Your task to perform on an android device: change the clock display to digital Image 0: 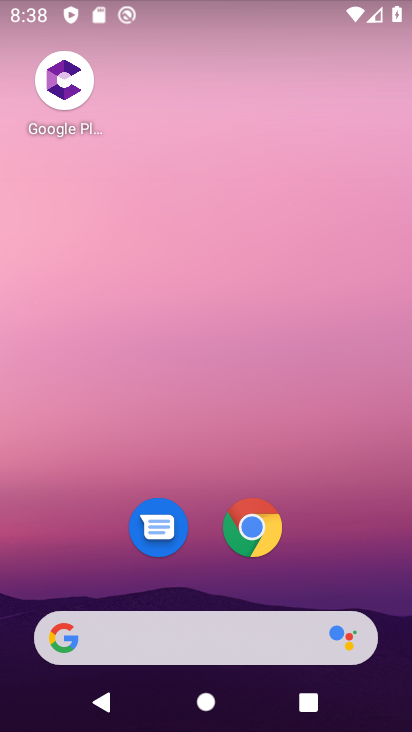
Step 0: drag from (401, 608) to (307, 154)
Your task to perform on an android device: change the clock display to digital Image 1: 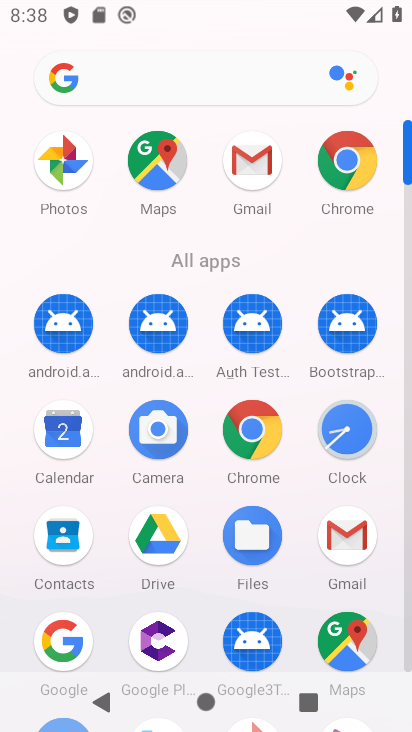
Step 1: click (343, 425)
Your task to perform on an android device: change the clock display to digital Image 2: 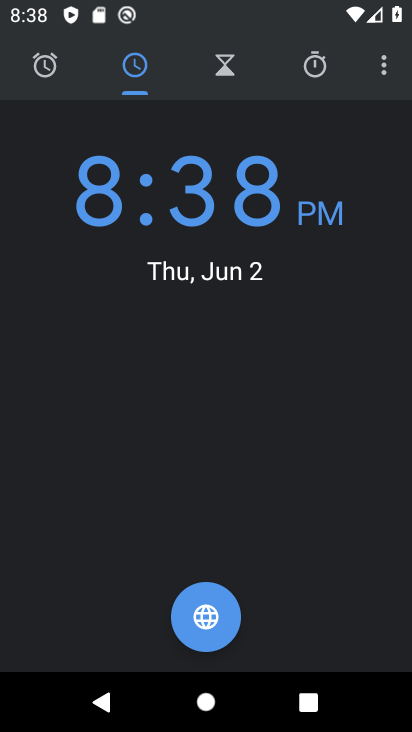
Step 2: click (378, 62)
Your task to perform on an android device: change the clock display to digital Image 3: 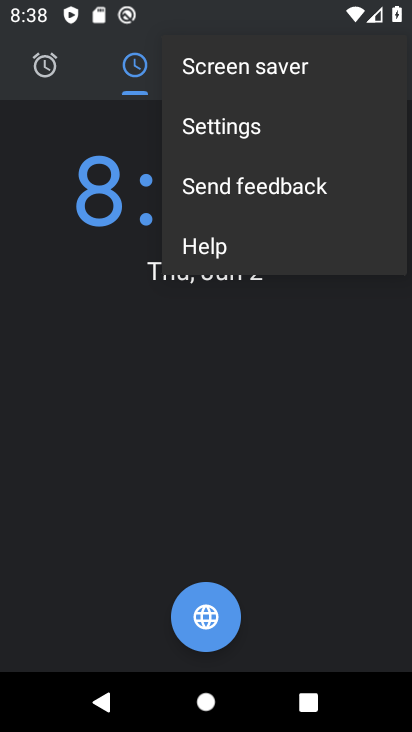
Step 3: click (281, 116)
Your task to perform on an android device: change the clock display to digital Image 4: 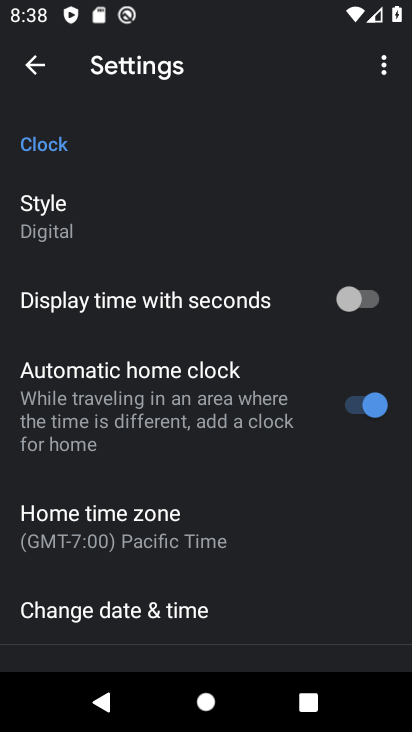
Step 4: click (148, 230)
Your task to perform on an android device: change the clock display to digital Image 5: 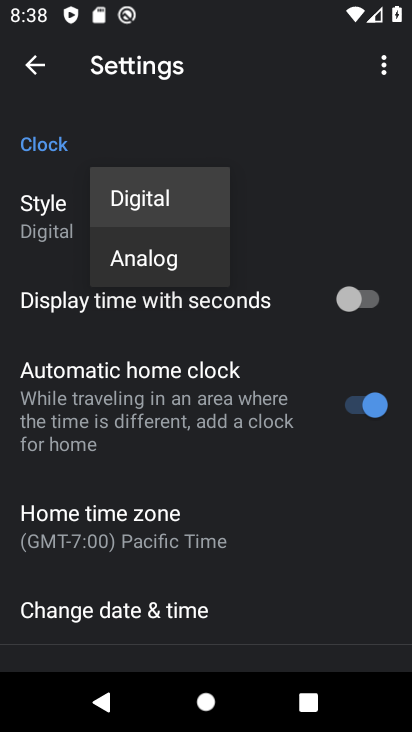
Step 5: task complete